Your task to perform on an android device: change the clock display to analog Image 0: 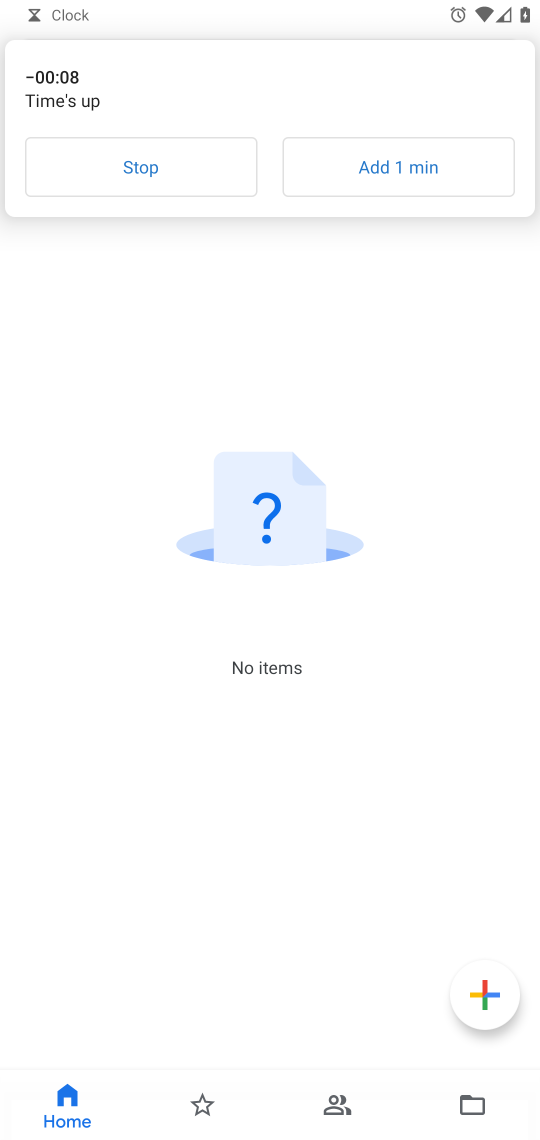
Step 0: press home button
Your task to perform on an android device: change the clock display to analog Image 1: 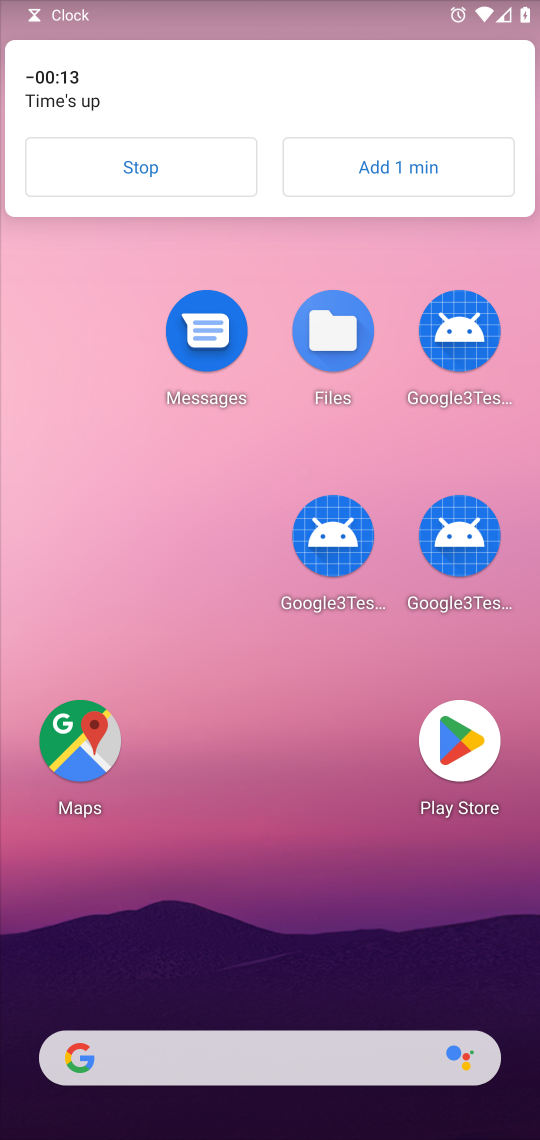
Step 1: click (204, 160)
Your task to perform on an android device: change the clock display to analog Image 2: 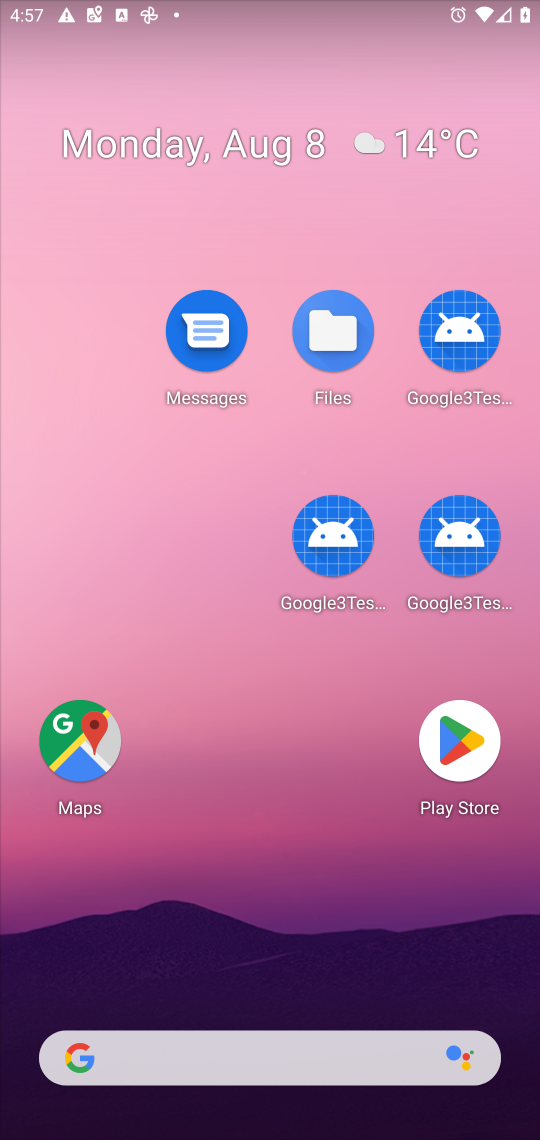
Step 2: drag from (283, 1054) to (290, 82)
Your task to perform on an android device: change the clock display to analog Image 3: 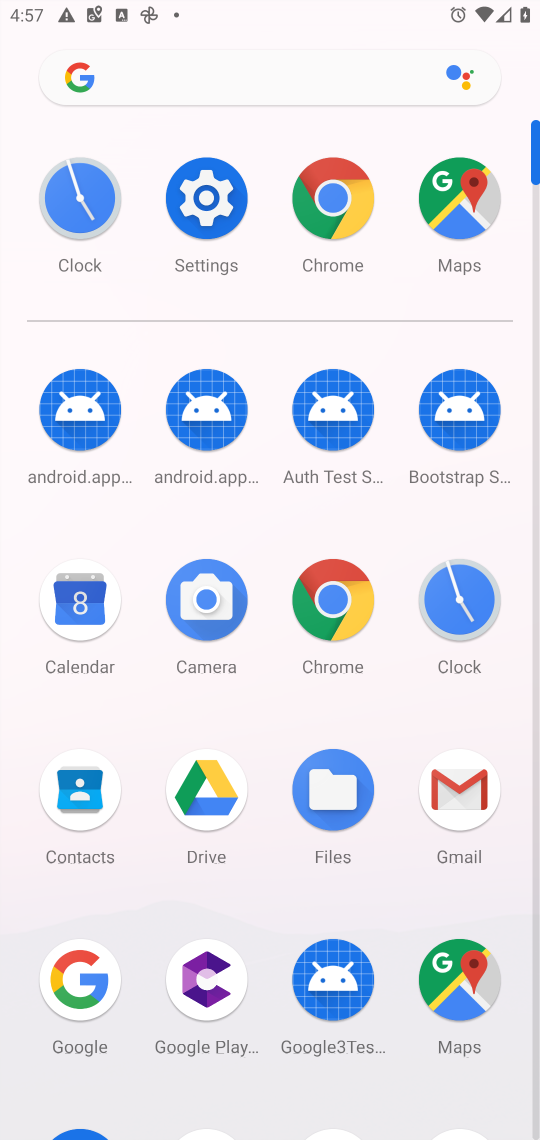
Step 3: click (313, 602)
Your task to perform on an android device: change the clock display to analog Image 4: 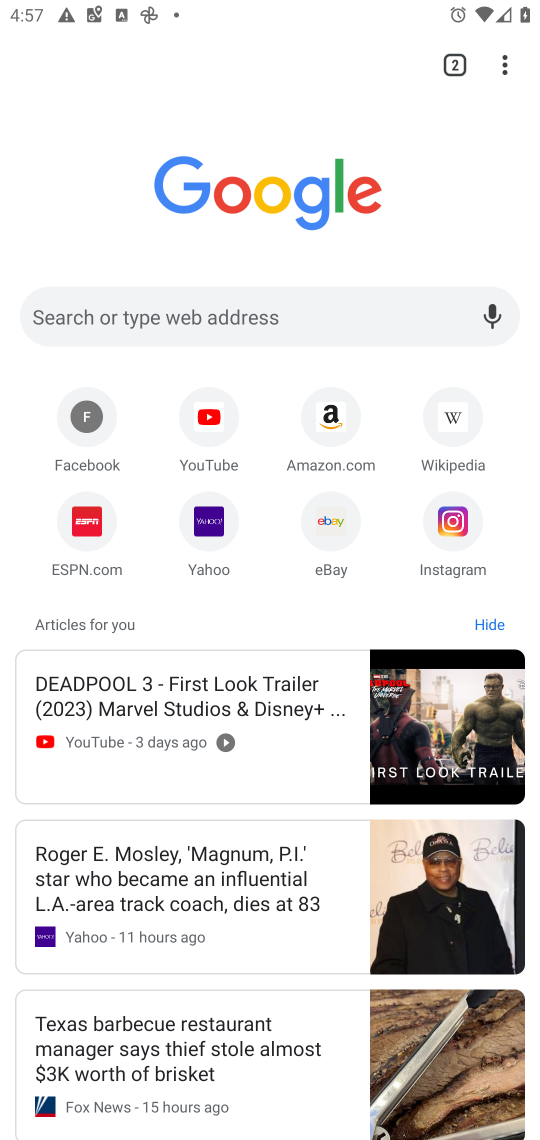
Step 4: press home button
Your task to perform on an android device: change the clock display to analog Image 5: 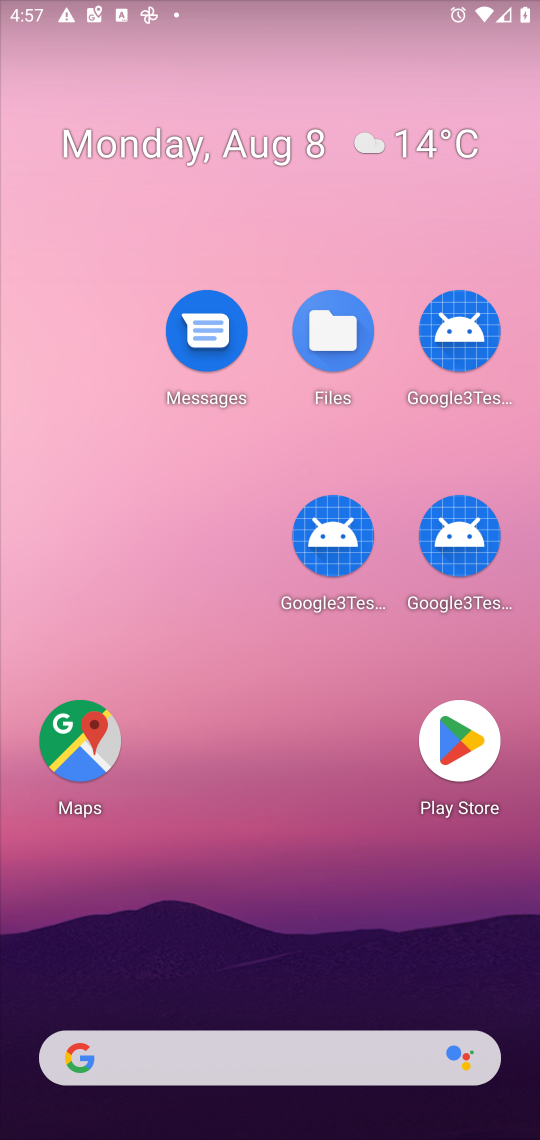
Step 5: drag from (320, 1068) to (480, 42)
Your task to perform on an android device: change the clock display to analog Image 6: 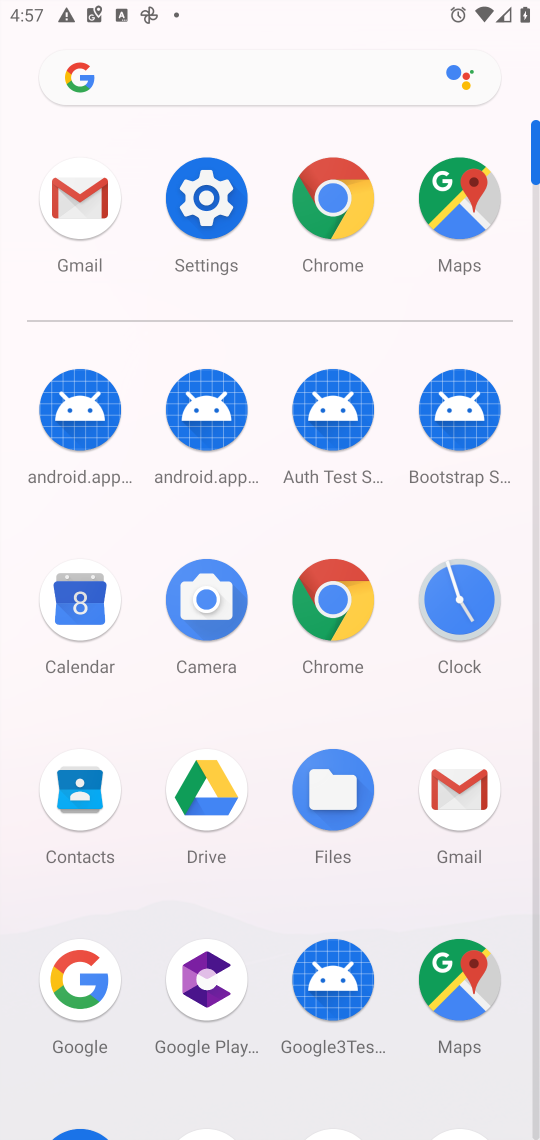
Step 6: click (450, 610)
Your task to perform on an android device: change the clock display to analog Image 7: 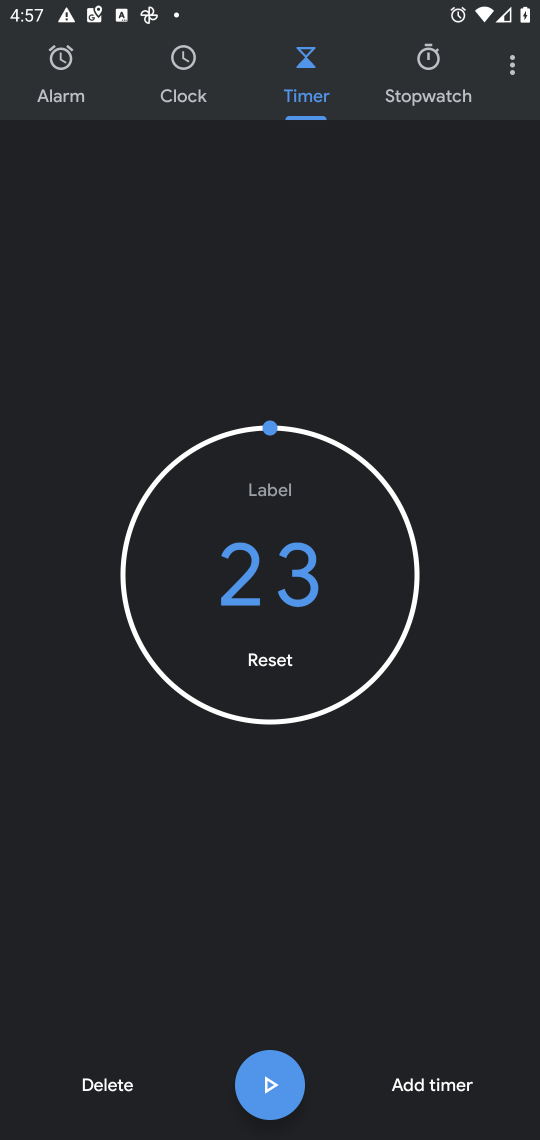
Step 7: click (527, 73)
Your task to perform on an android device: change the clock display to analog Image 8: 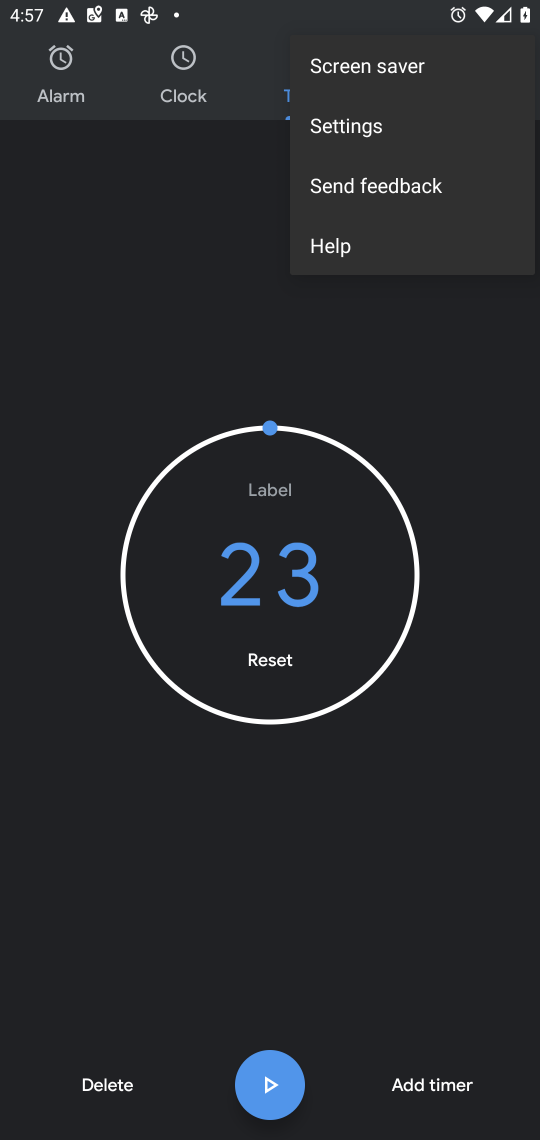
Step 8: click (379, 112)
Your task to perform on an android device: change the clock display to analog Image 9: 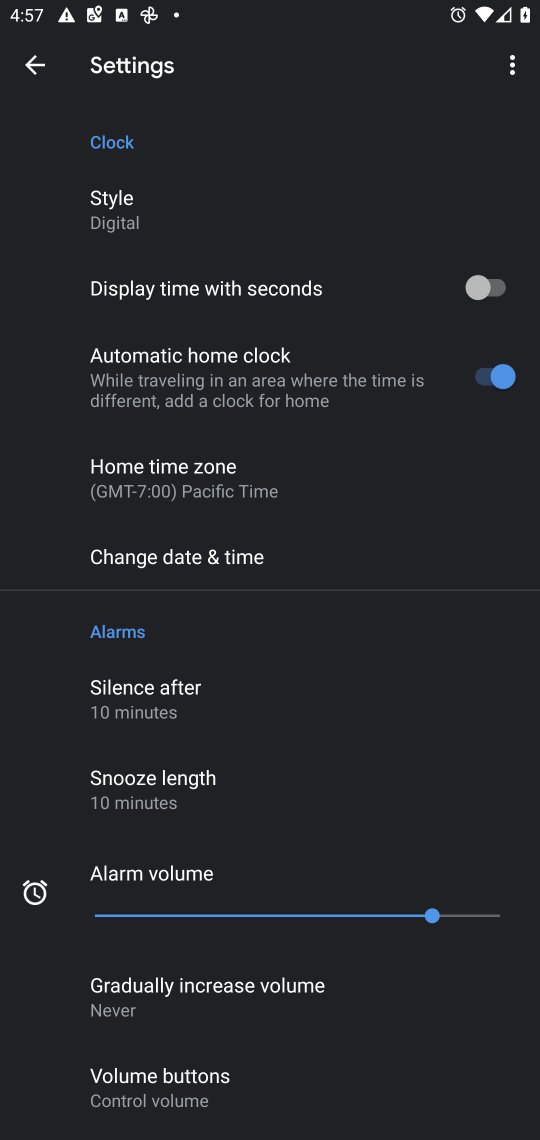
Step 9: click (219, 232)
Your task to perform on an android device: change the clock display to analog Image 10: 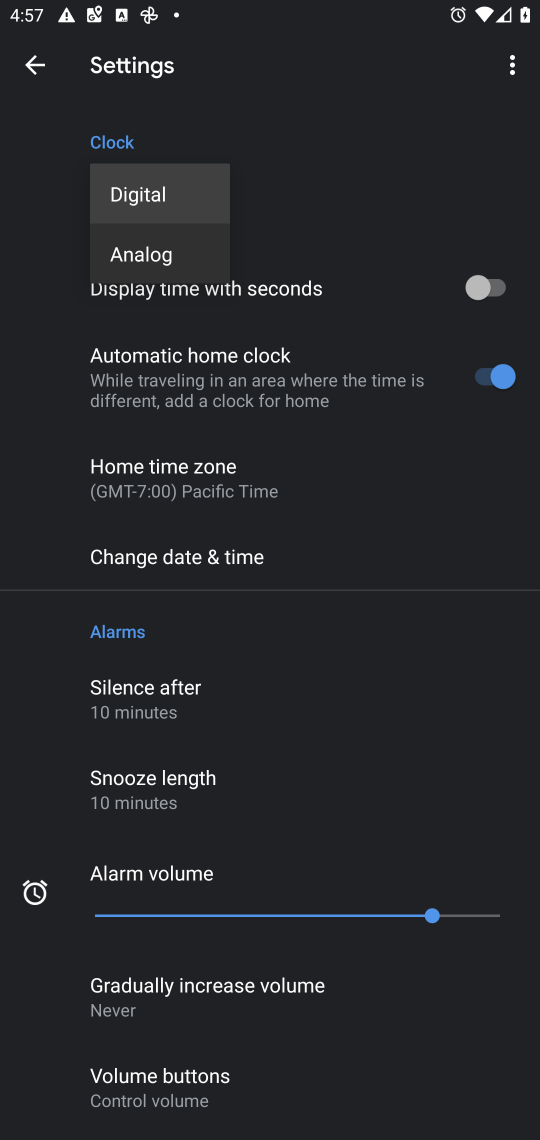
Step 10: click (164, 240)
Your task to perform on an android device: change the clock display to analog Image 11: 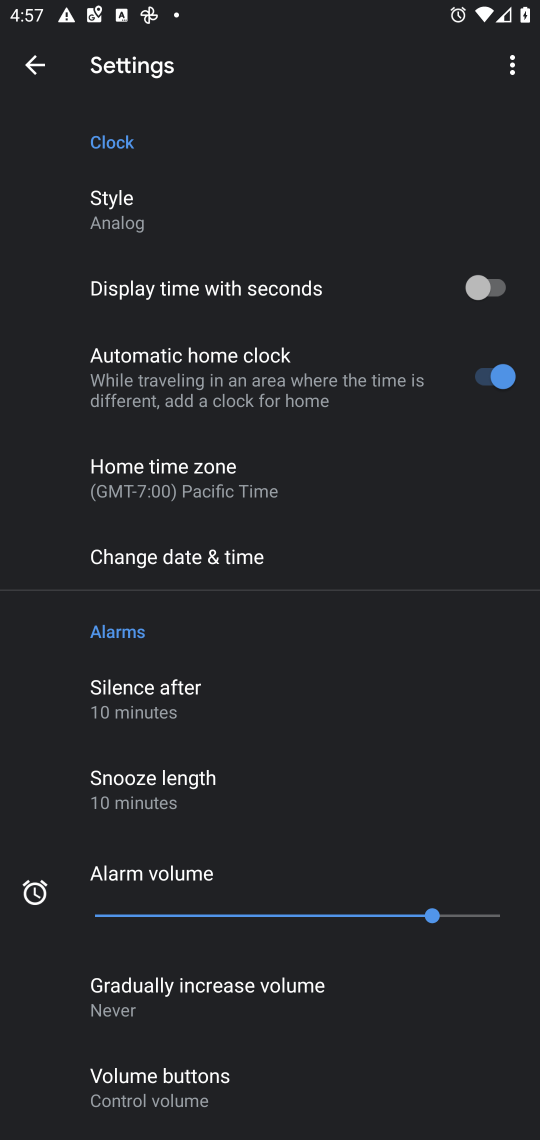
Step 11: task complete